Your task to perform on an android device: Turn off the flashlight Image 0: 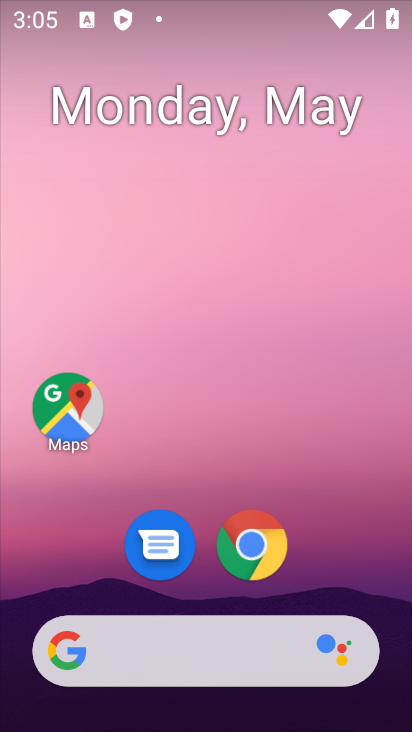
Step 0: drag from (219, 590) to (239, 300)
Your task to perform on an android device: Turn off the flashlight Image 1: 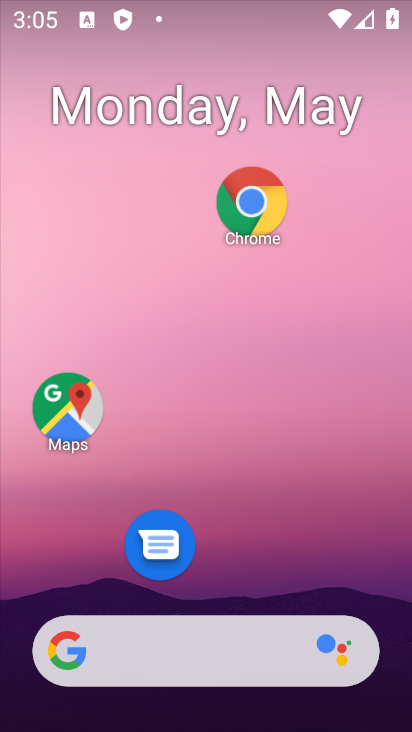
Step 1: drag from (238, 561) to (240, 228)
Your task to perform on an android device: Turn off the flashlight Image 2: 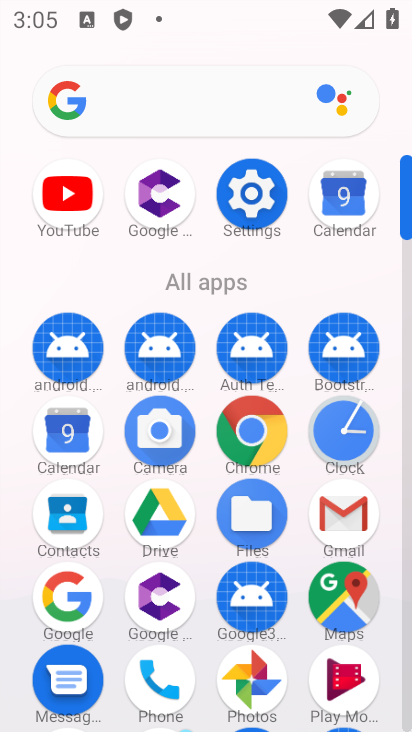
Step 2: click (240, 227)
Your task to perform on an android device: Turn off the flashlight Image 3: 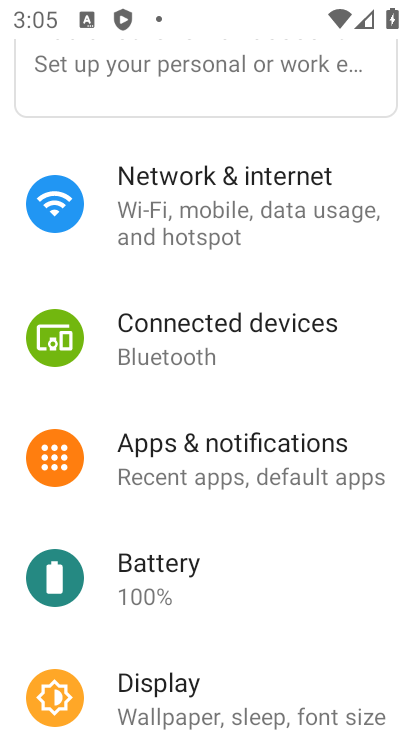
Step 3: task complete